Your task to perform on an android device: Open Google Image 0: 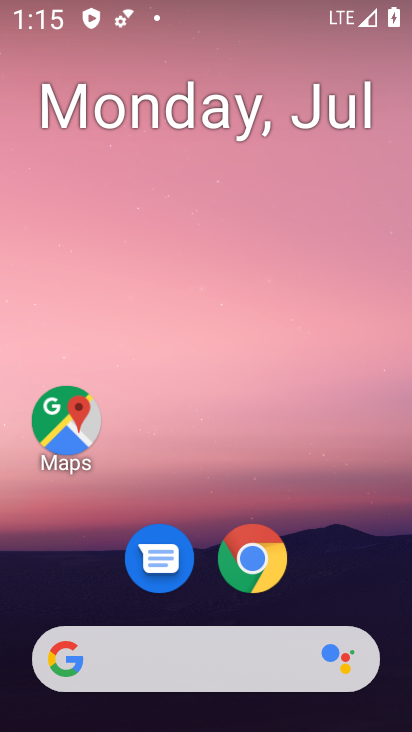
Step 0: press home button
Your task to perform on an android device: Open Google Image 1: 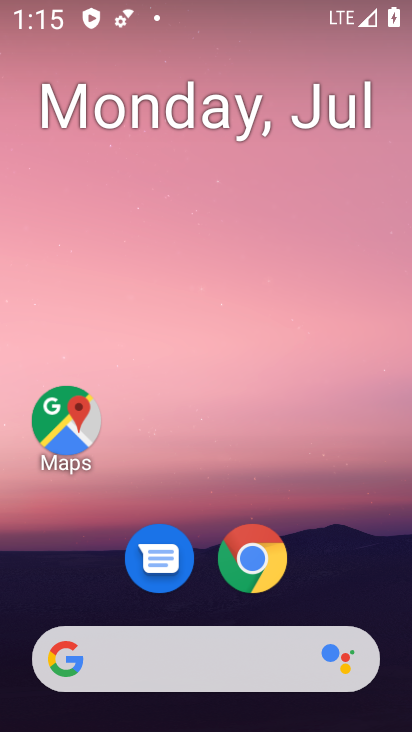
Step 1: drag from (367, 588) to (361, 83)
Your task to perform on an android device: Open Google Image 2: 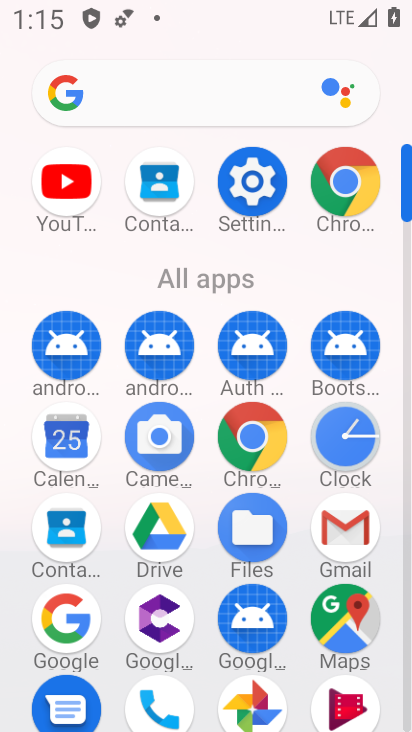
Step 2: click (64, 619)
Your task to perform on an android device: Open Google Image 3: 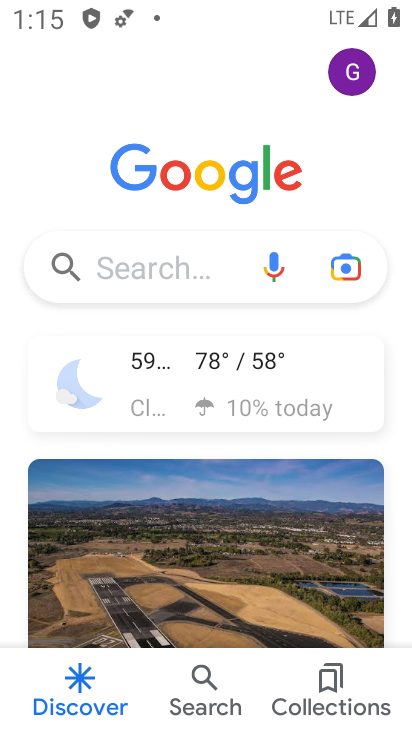
Step 3: task complete